Your task to perform on an android device: open app "Google Translate" (install if not already installed) Image 0: 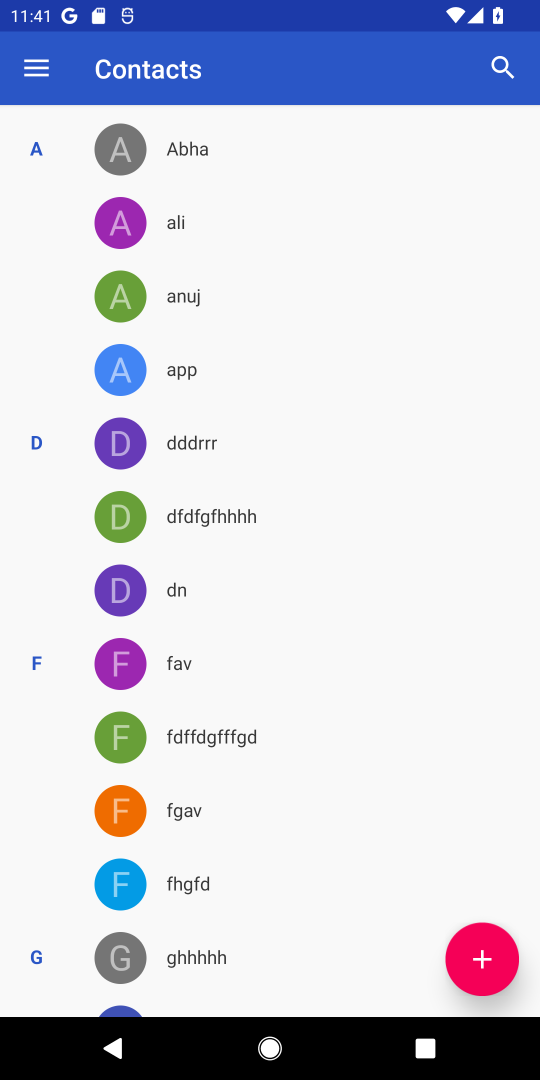
Step 0: press home button
Your task to perform on an android device: open app "Google Translate" (install if not already installed) Image 1: 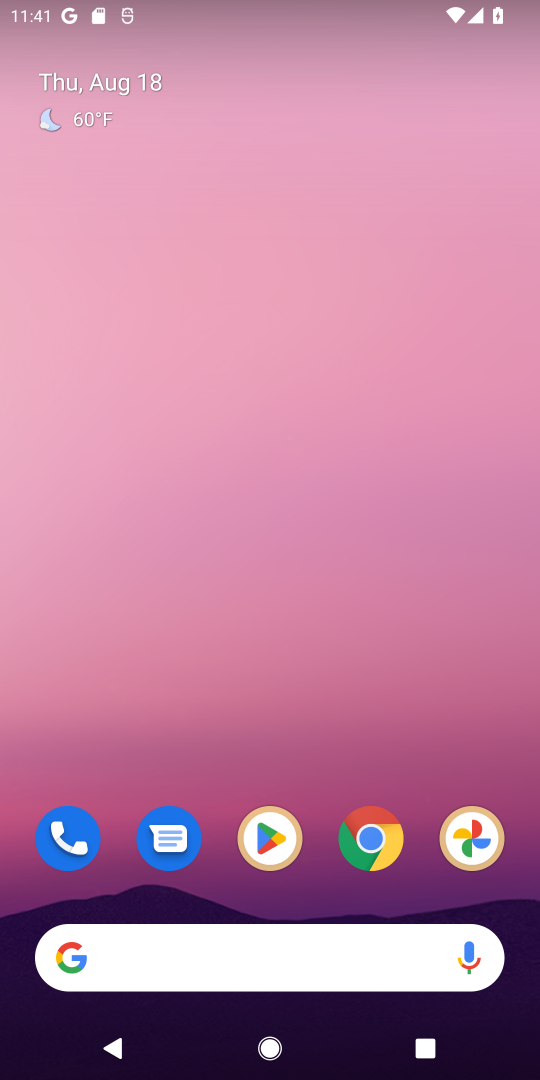
Step 1: click (270, 826)
Your task to perform on an android device: open app "Google Translate" (install if not already installed) Image 2: 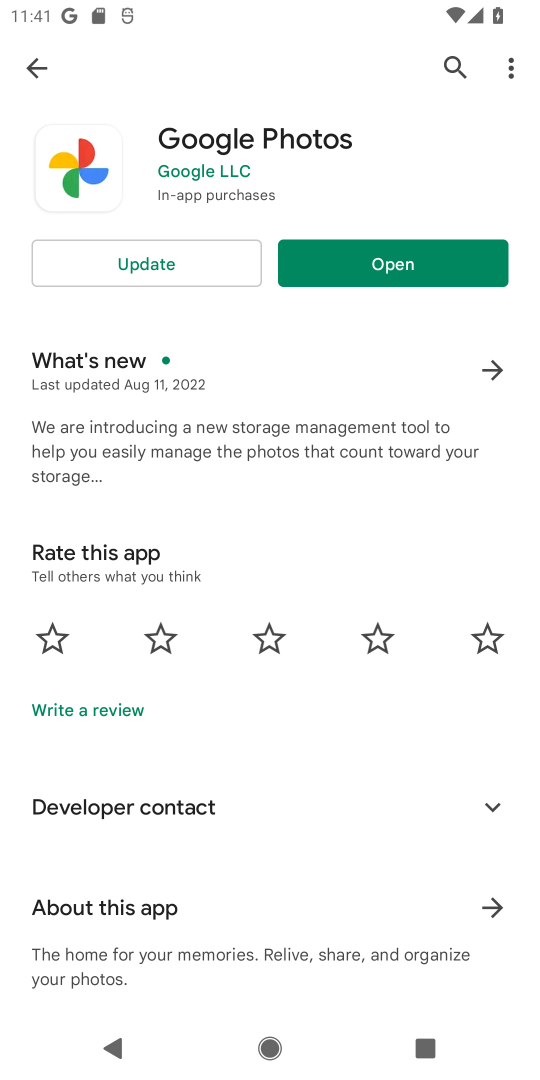
Step 2: click (446, 60)
Your task to perform on an android device: open app "Google Translate" (install if not already installed) Image 3: 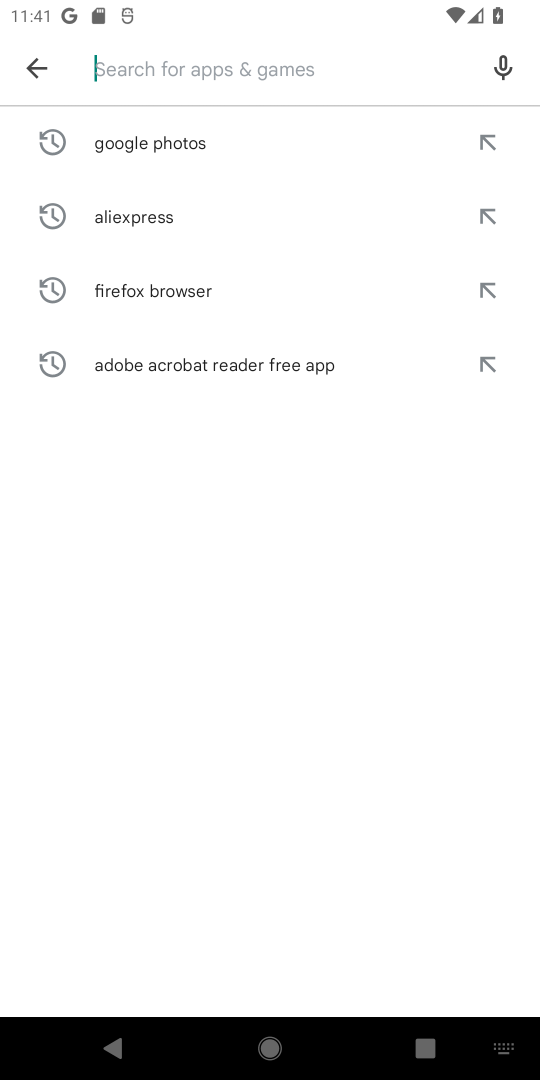
Step 3: type "Google Translate"
Your task to perform on an android device: open app "Google Translate" (install if not already installed) Image 4: 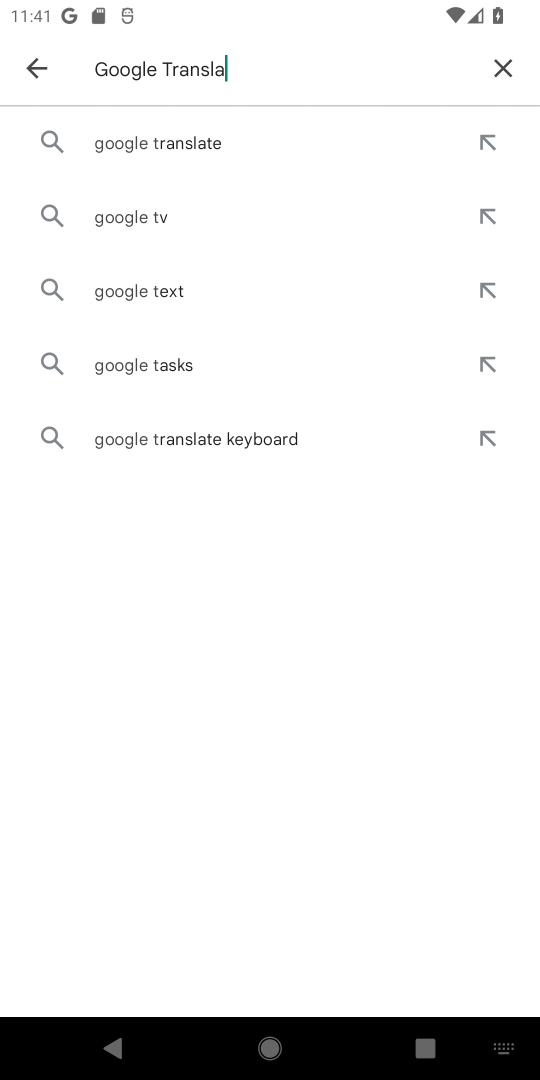
Step 4: type ""
Your task to perform on an android device: open app "Google Translate" (install if not already installed) Image 5: 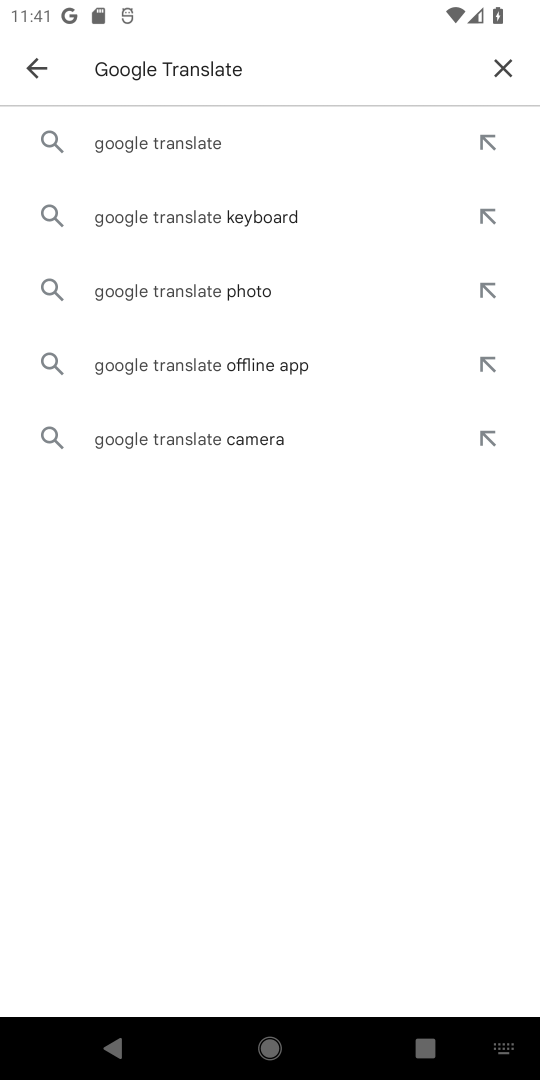
Step 5: click (220, 143)
Your task to perform on an android device: open app "Google Translate" (install if not already installed) Image 6: 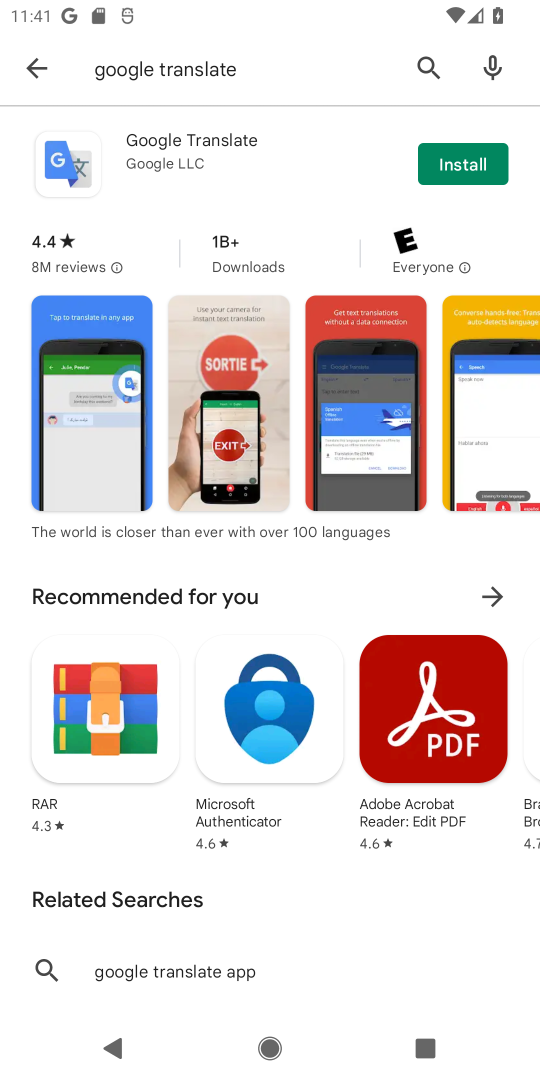
Step 6: click (455, 157)
Your task to perform on an android device: open app "Google Translate" (install if not already installed) Image 7: 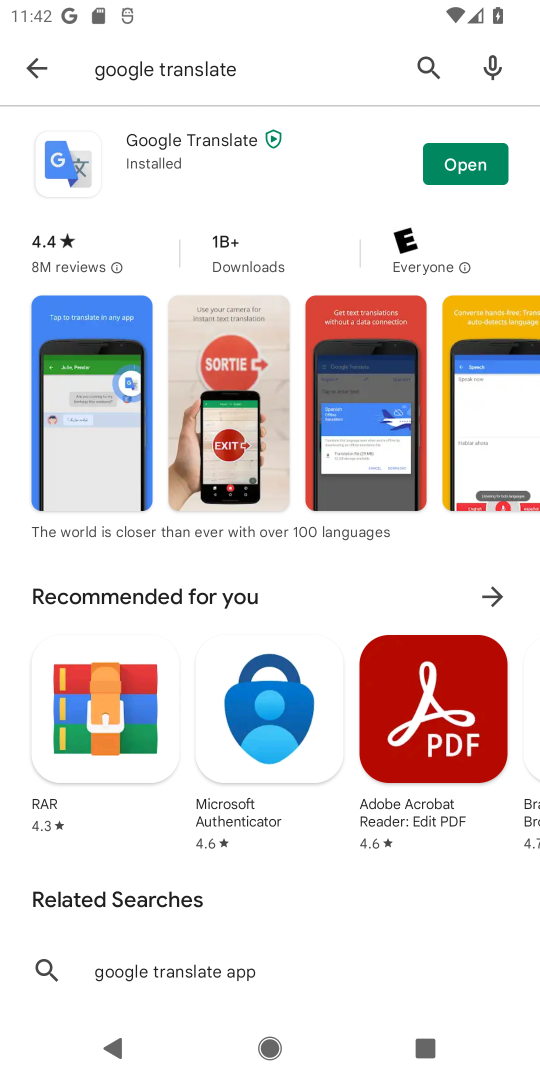
Step 7: click (495, 155)
Your task to perform on an android device: open app "Google Translate" (install if not already installed) Image 8: 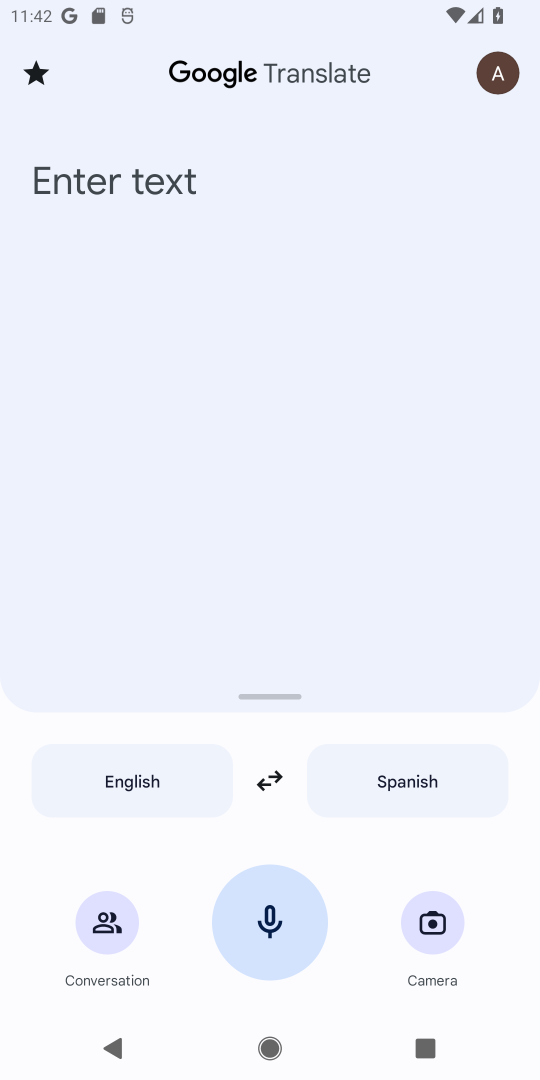
Step 8: task complete